Your task to perform on an android device: Open notification settings Image 0: 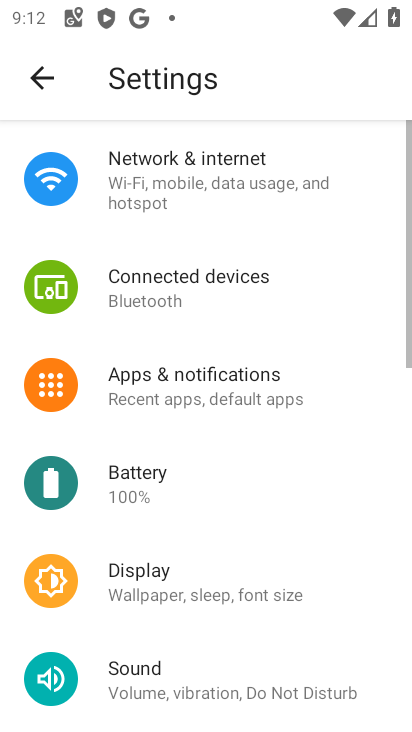
Step 0: click (179, 391)
Your task to perform on an android device: Open notification settings Image 1: 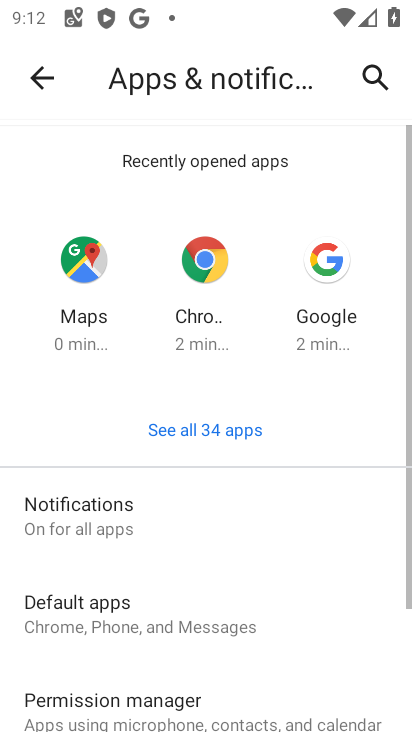
Step 1: click (115, 511)
Your task to perform on an android device: Open notification settings Image 2: 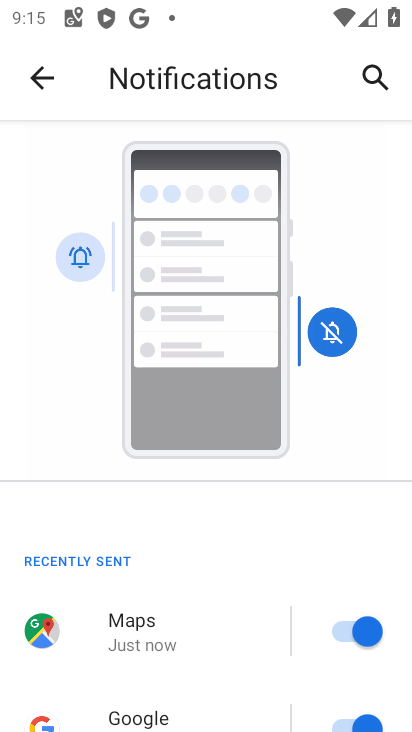
Step 2: task complete